Your task to perform on an android device: Open Google Maps Image 0: 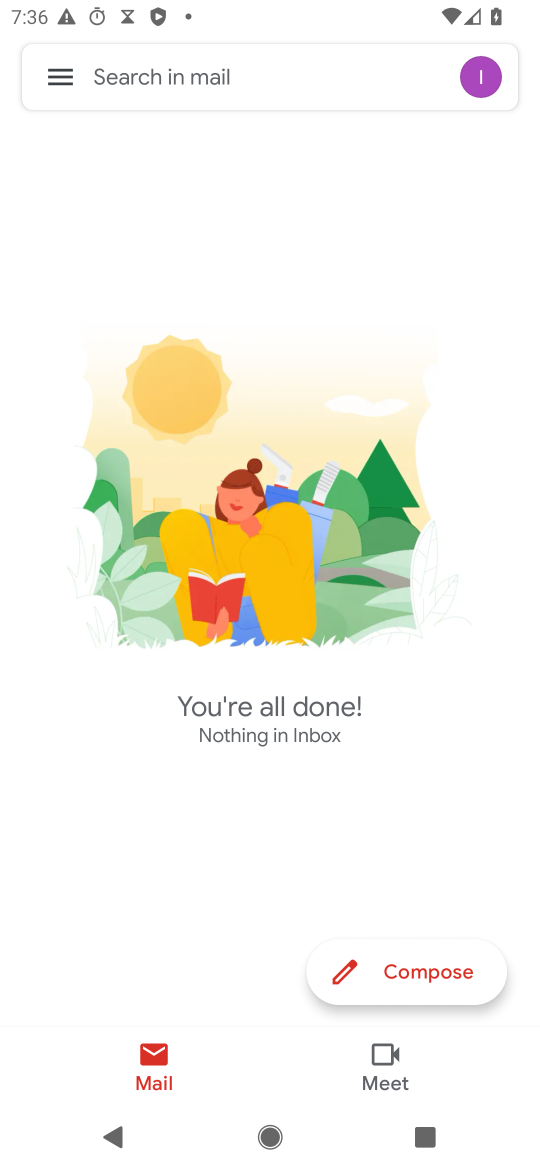
Step 0: press home button
Your task to perform on an android device: Open Google Maps Image 1: 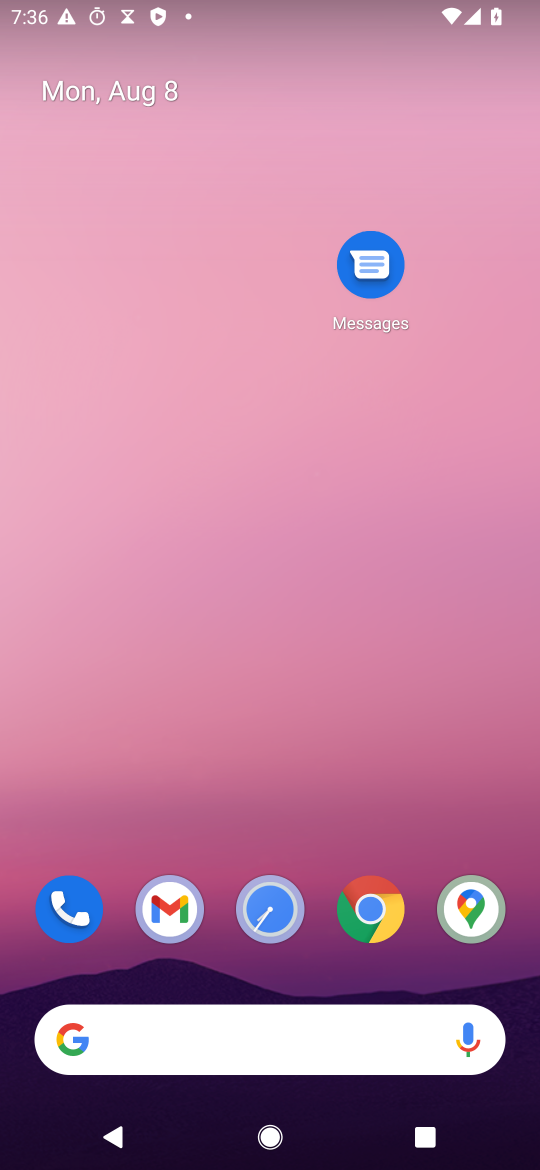
Step 1: drag from (248, 1034) to (392, 146)
Your task to perform on an android device: Open Google Maps Image 2: 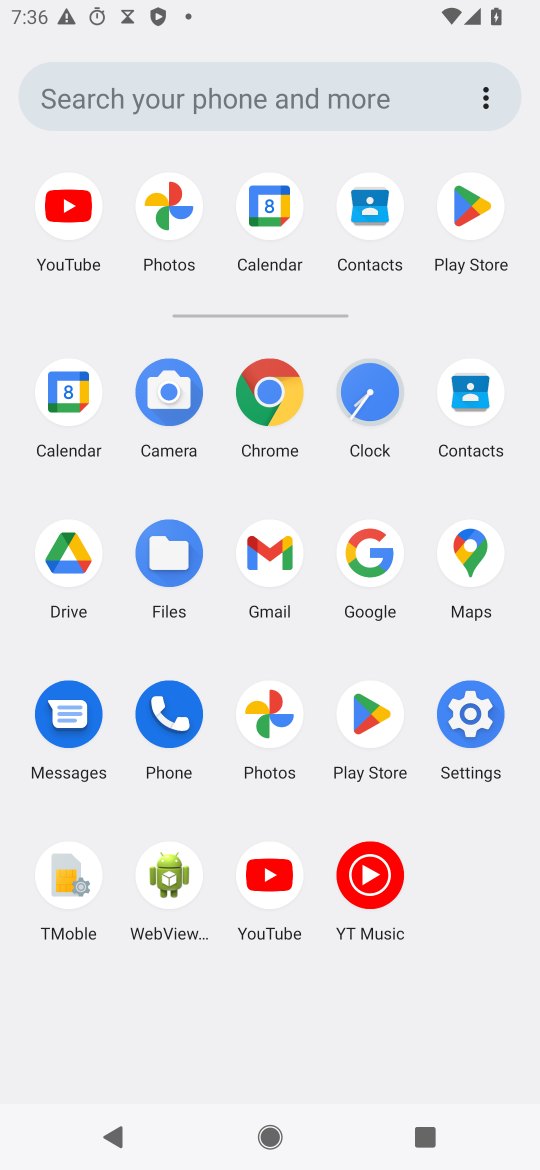
Step 2: click (474, 543)
Your task to perform on an android device: Open Google Maps Image 3: 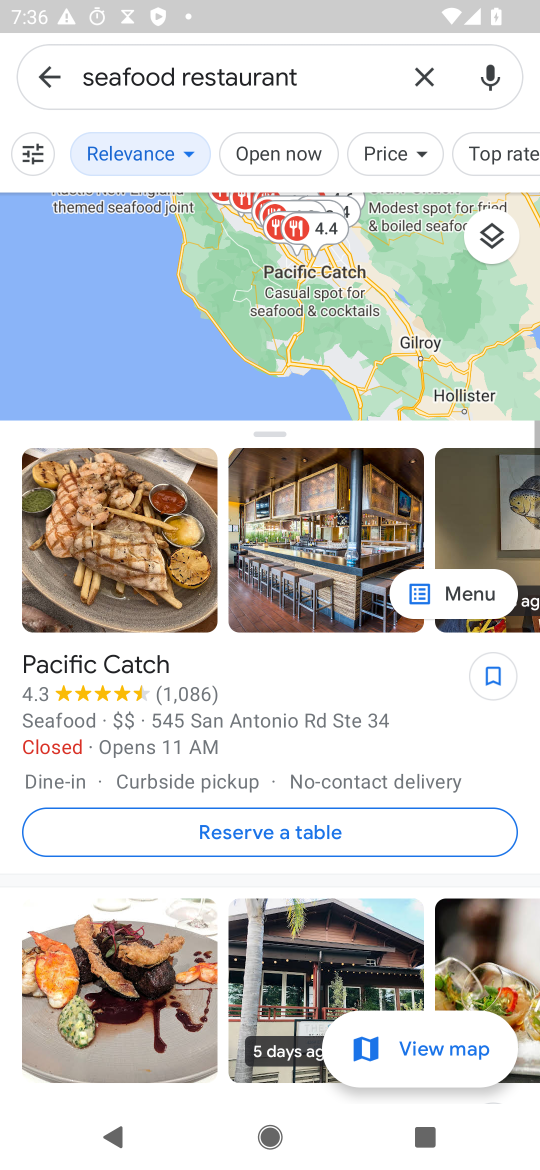
Step 3: click (42, 72)
Your task to perform on an android device: Open Google Maps Image 4: 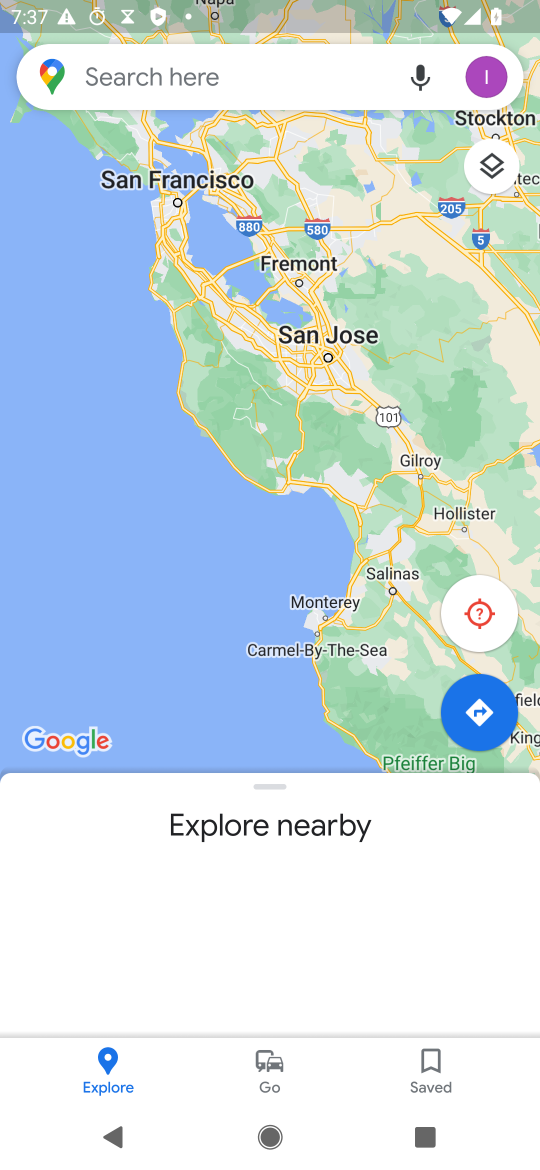
Step 4: task complete